Your task to perform on an android device: toggle javascript in the chrome app Image 0: 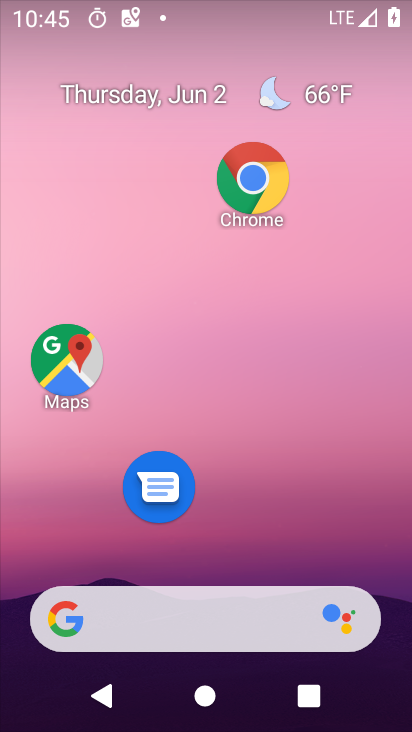
Step 0: drag from (231, 723) to (240, 91)
Your task to perform on an android device: toggle javascript in the chrome app Image 1: 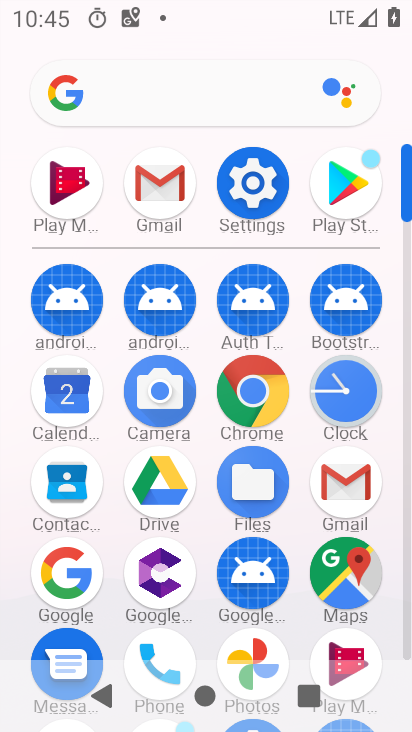
Step 1: click (254, 392)
Your task to perform on an android device: toggle javascript in the chrome app Image 2: 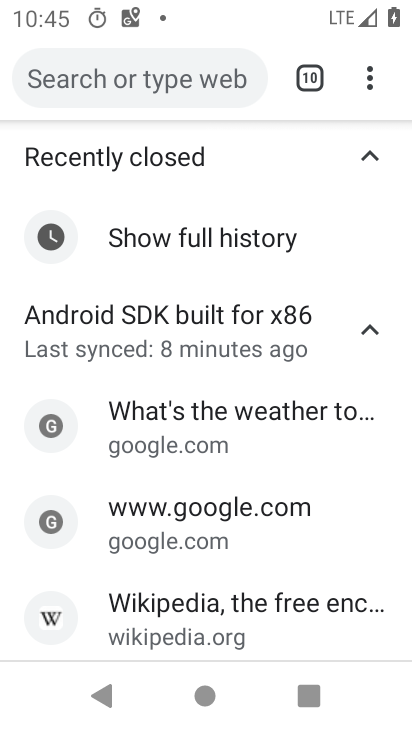
Step 2: click (368, 86)
Your task to perform on an android device: toggle javascript in the chrome app Image 3: 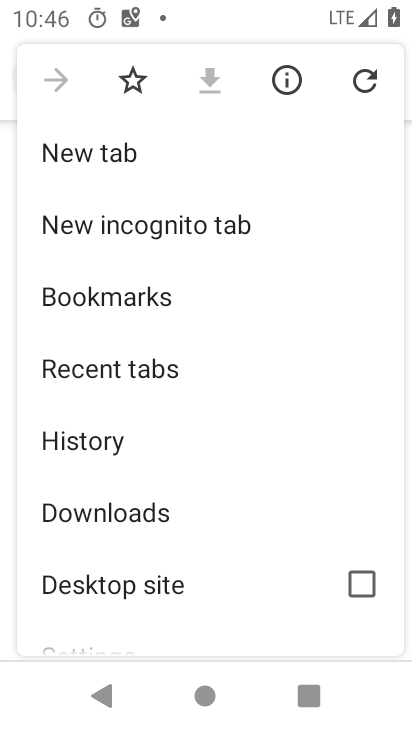
Step 3: drag from (176, 634) to (156, 209)
Your task to perform on an android device: toggle javascript in the chrome app Image 4: 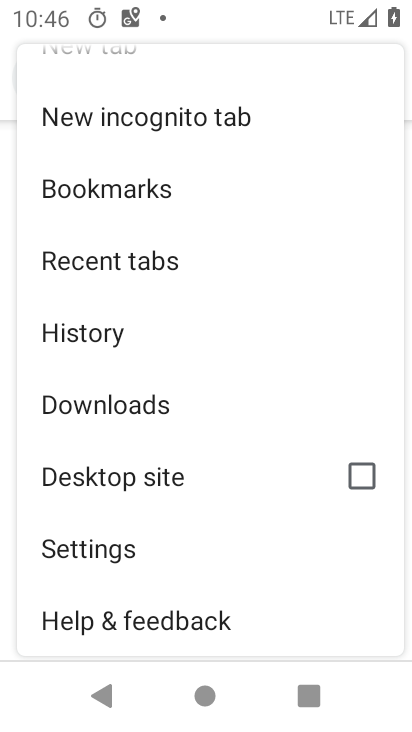
Step 4: click (113, 549)
Your task to perform on an android device: toggle javascript in the chrome app Image 5: 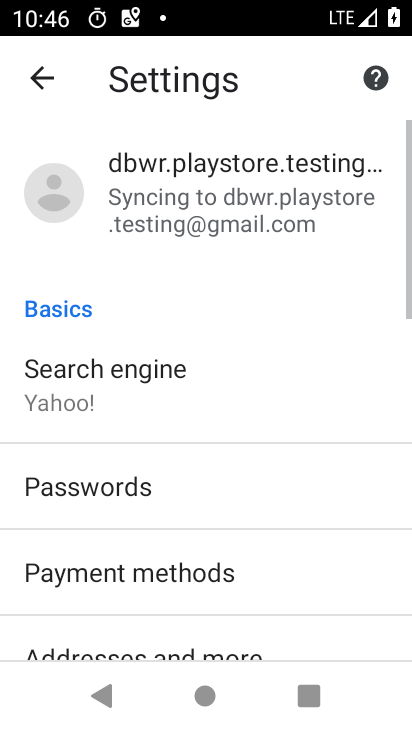
Step 5: drag from (151, 633) to (153, 193)
Your task to perform on an android device: toggle javascript in the chrome app Image 6: 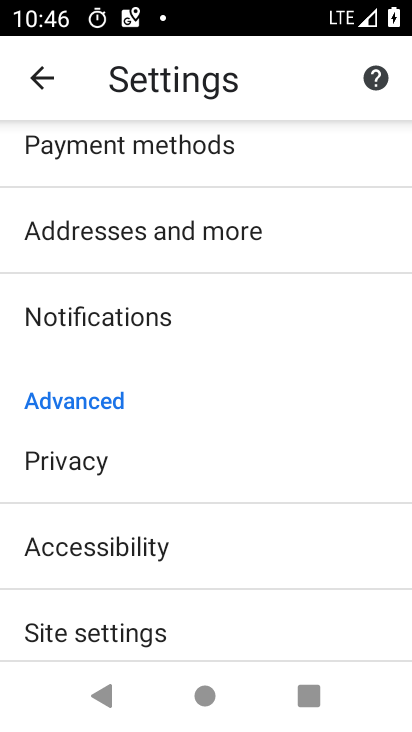
Step 6: drag from (139, 615) to (145, 284)
Your task to perform on an android device: toggle javascript in the chrome app Image 7: 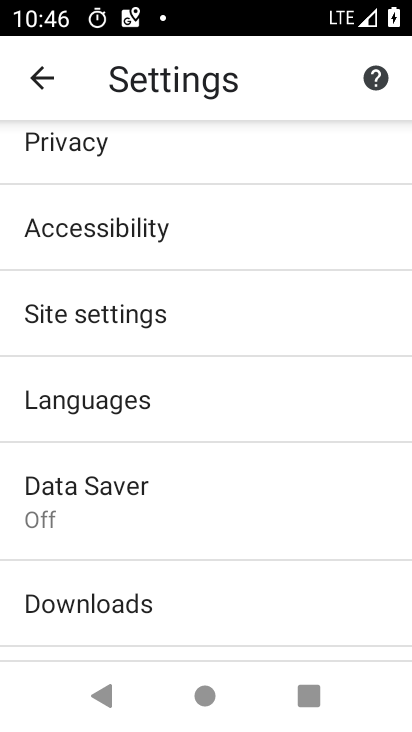
Step 7: click (114, 316)
Your task to perform on an android device: toggle javascript in the chrome app Image 8: 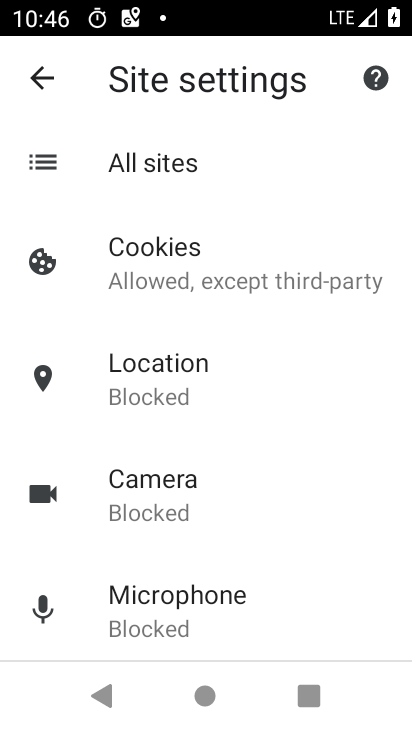
Step 8: drag from (167, 634) to (163, 210)
Your task to perform on an android device: toggle javascript in the chrome app Image 9: 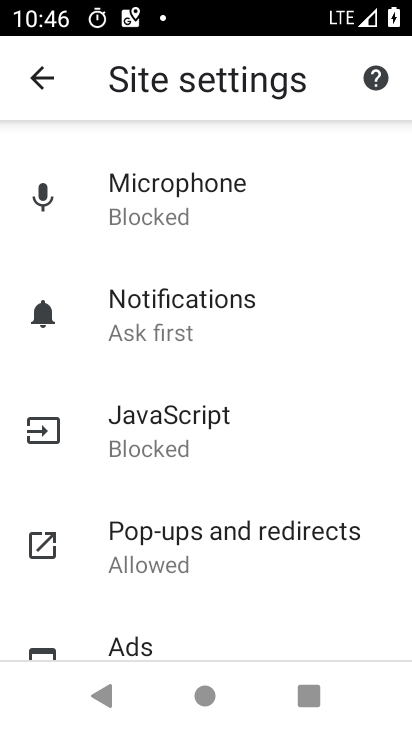
Step 9: click (169, 432)
Your task to perform on an android device: toggle javascript in the chrome app Image 10: 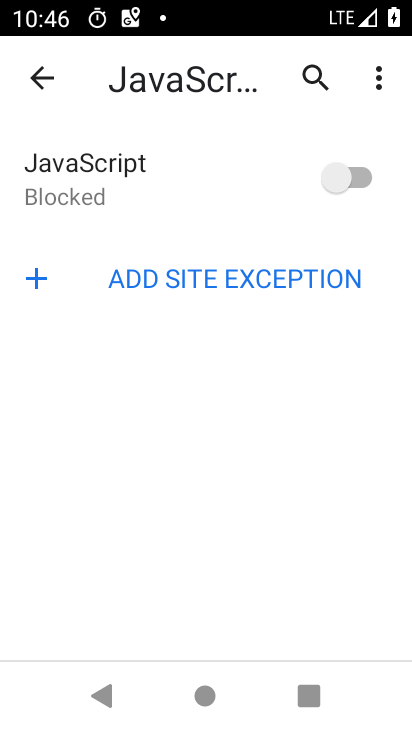
Step 10: click (358, 172)
Your task to perform on an android device: toggle javascript in the chrome app Image 11: 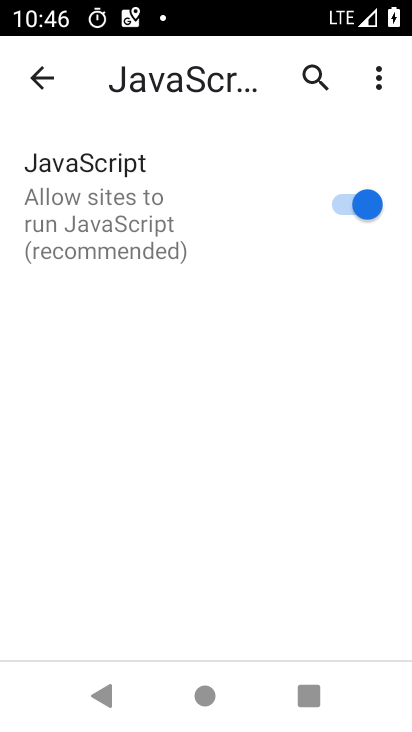
Step 11: task complete